Your task to perform on an android device: Go to internet settings Image 0: 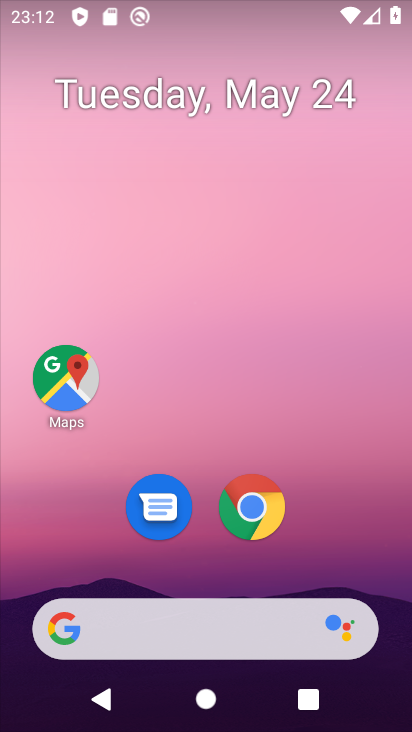
Step 0: drag from (188, 570) to (305, 62)
Your task to perform on an android device: Go to internet settings Image 1: 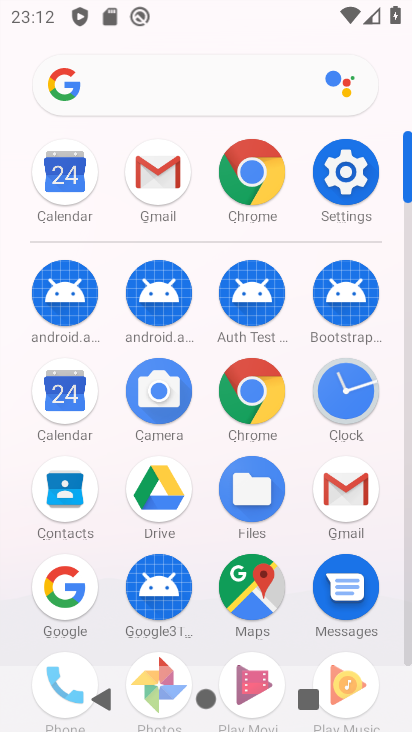
Step 1: click (351, 150)
Your task to perform on an android device: Go to internet settings Image 2: 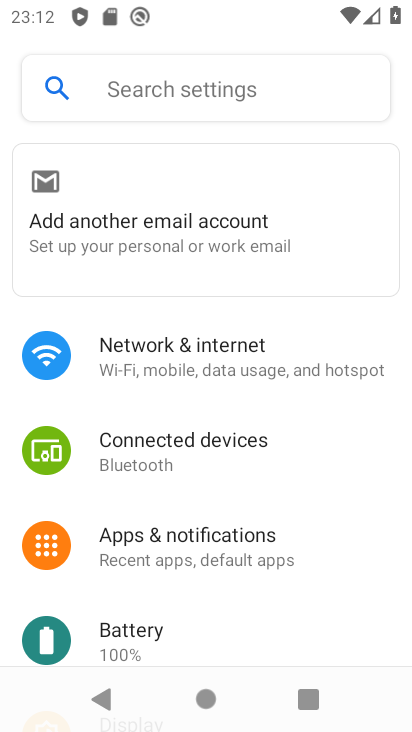
Step 2: click (287, 373)
Your task to perform on an android device: Go to internet settings Image 3: 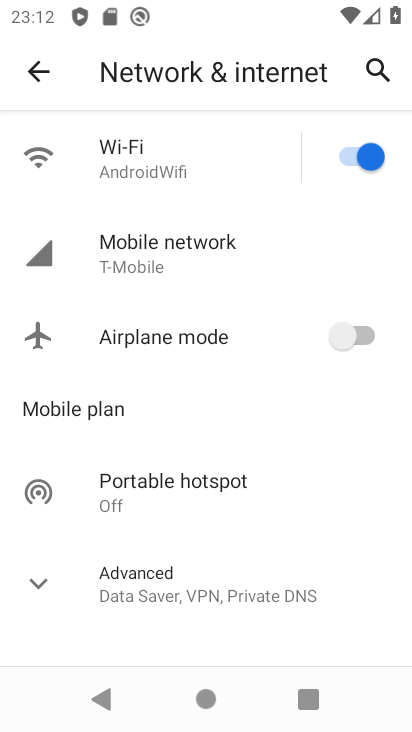
Step 3: task complete